Your task to perform on an android device: Do I have any events this weekend? Image 0: 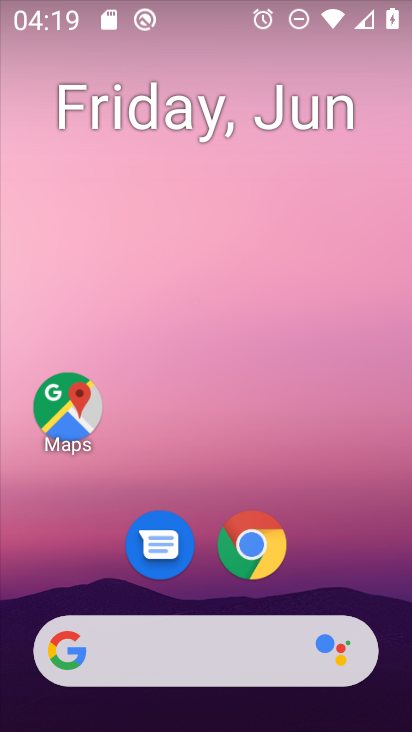
Step 0: drag from (337, 556) to (279, 28)
Your task to perform on an android device: Do I have any events this weekend? Image 1: 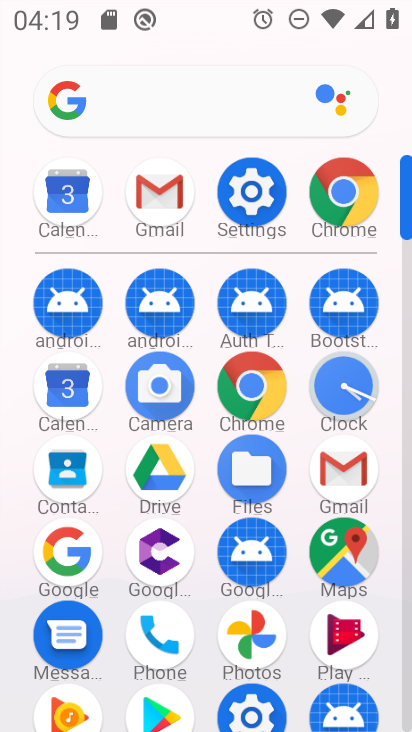
Step 1: click (55, 197)
Your task to perform on an android device: Do I have any events this weekend? Image 2: 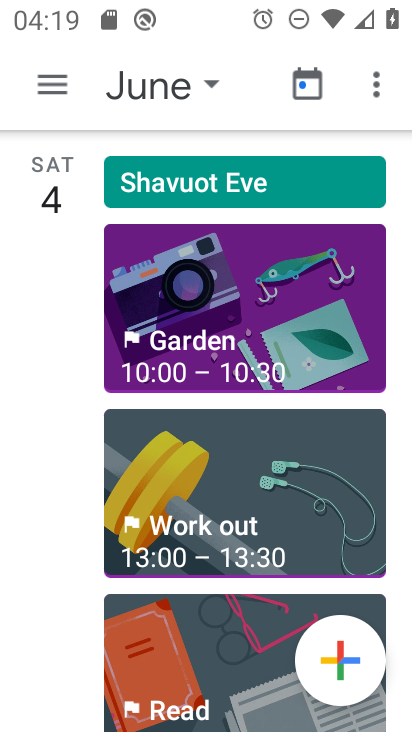
Step 2: task complete